Your task to perform on an android device: Open internet settings Image 0: 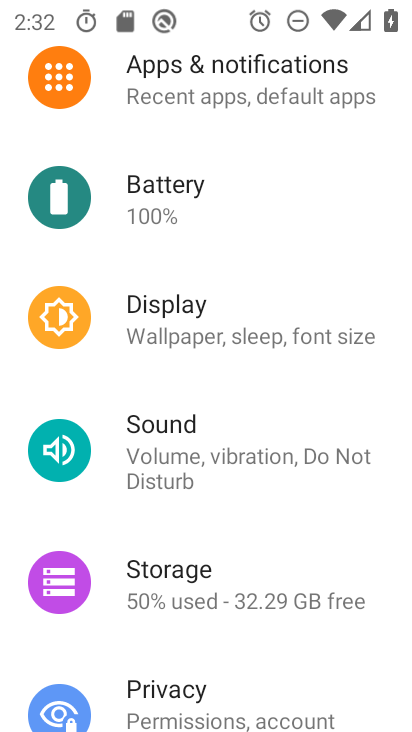
Step 0: drag from (287, 197) to (256, 586)
Your task to perform on an android device: Open internet settings Image 1: 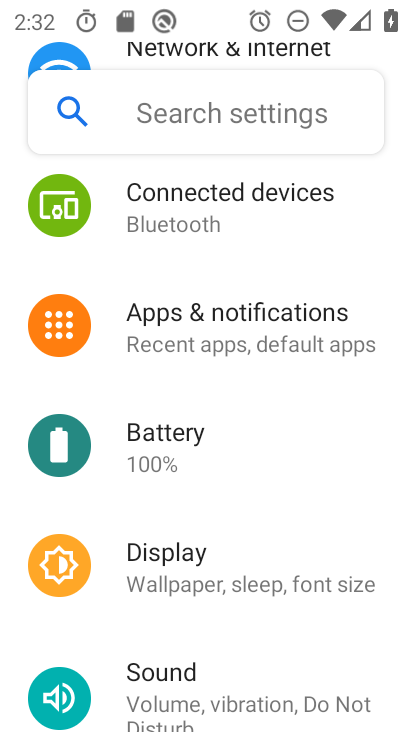
Step 1: drag from (251, 205) to (237, 589)
Your task to perform on an android device: Open internet settings Image 2: 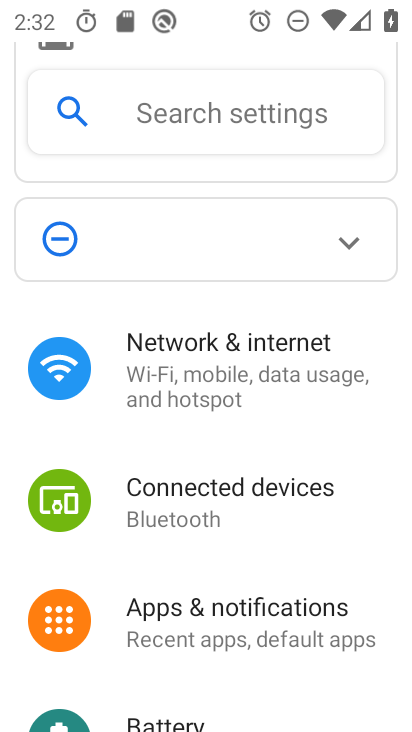
Step 2: click (257, 369)
Your task to perform on an android device: Open internet settings Image 3: 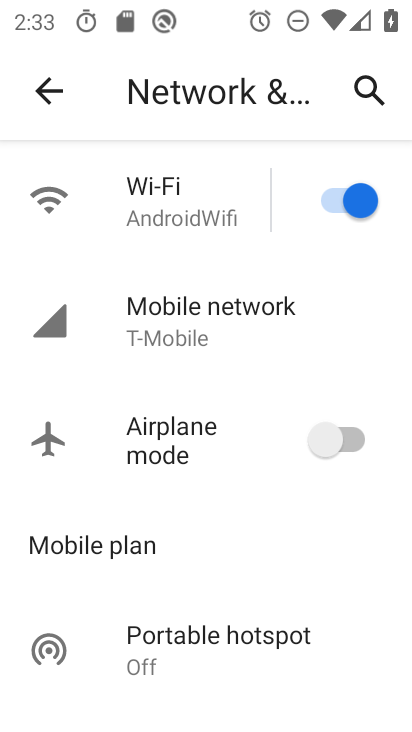
Step 3: task complete